Your task to perform on an android device: Search for sushi restaurants on Maps Image 0: 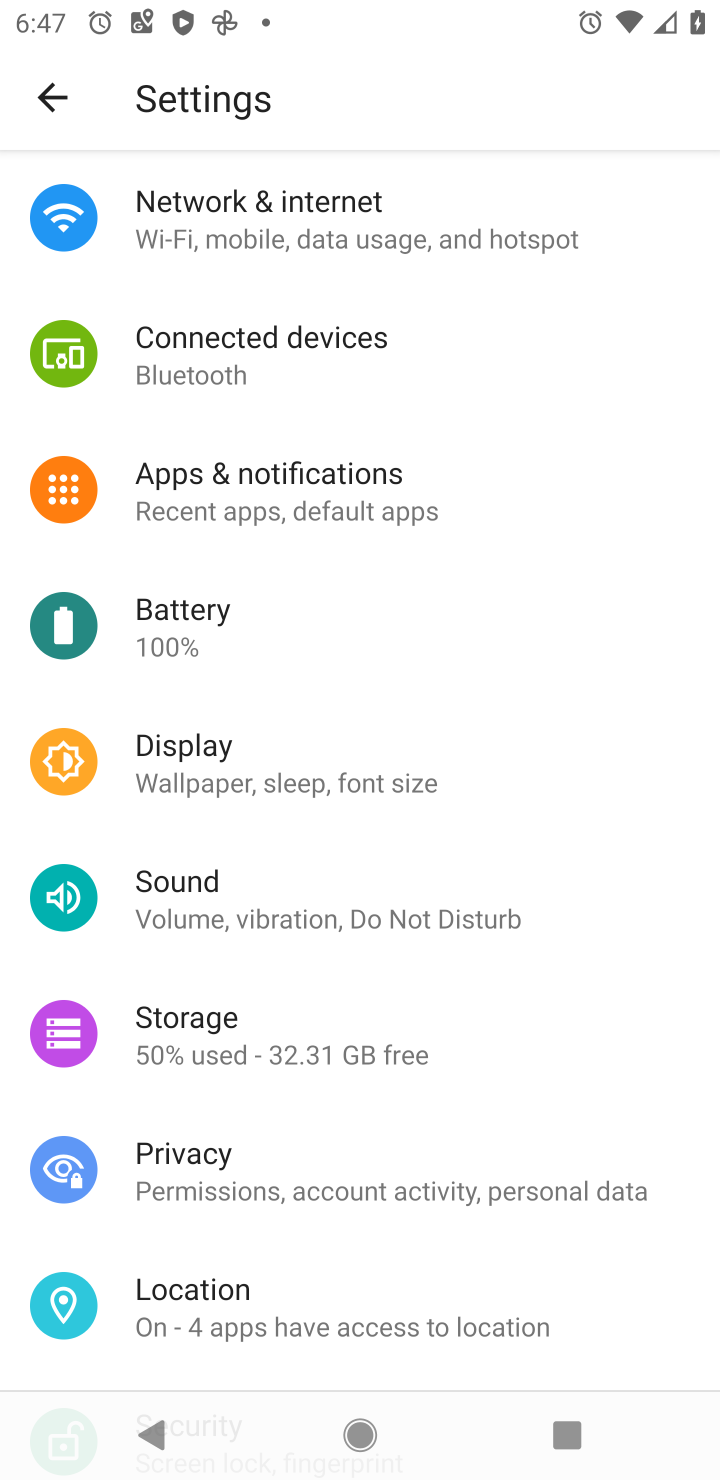
Step 0: press home button
Your task to perform on an android device: Search for sushi restaurants on Maps Image 1: 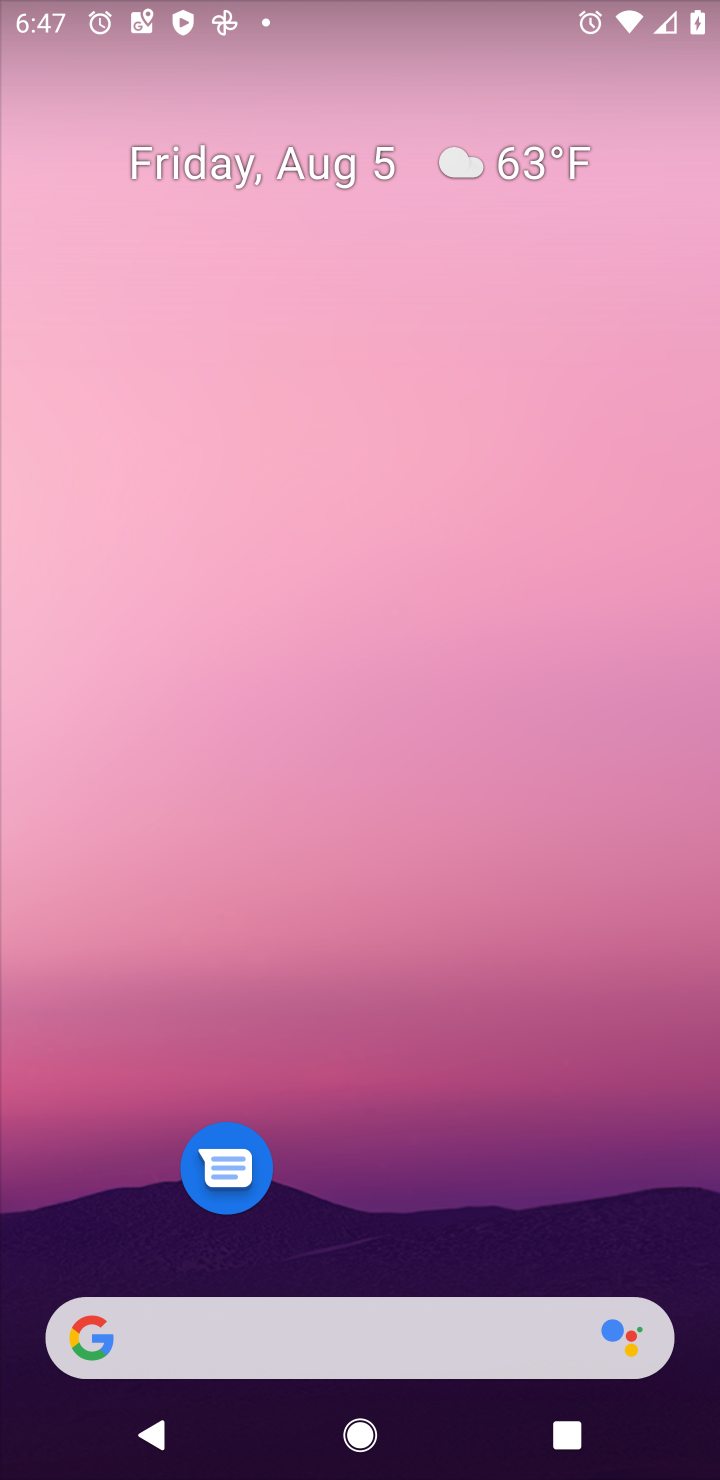
Step 1: drag from (373, 1216) to (481, 89)
Your task to perform on an android device: Search for sushi restaurants on Maps Image 2: 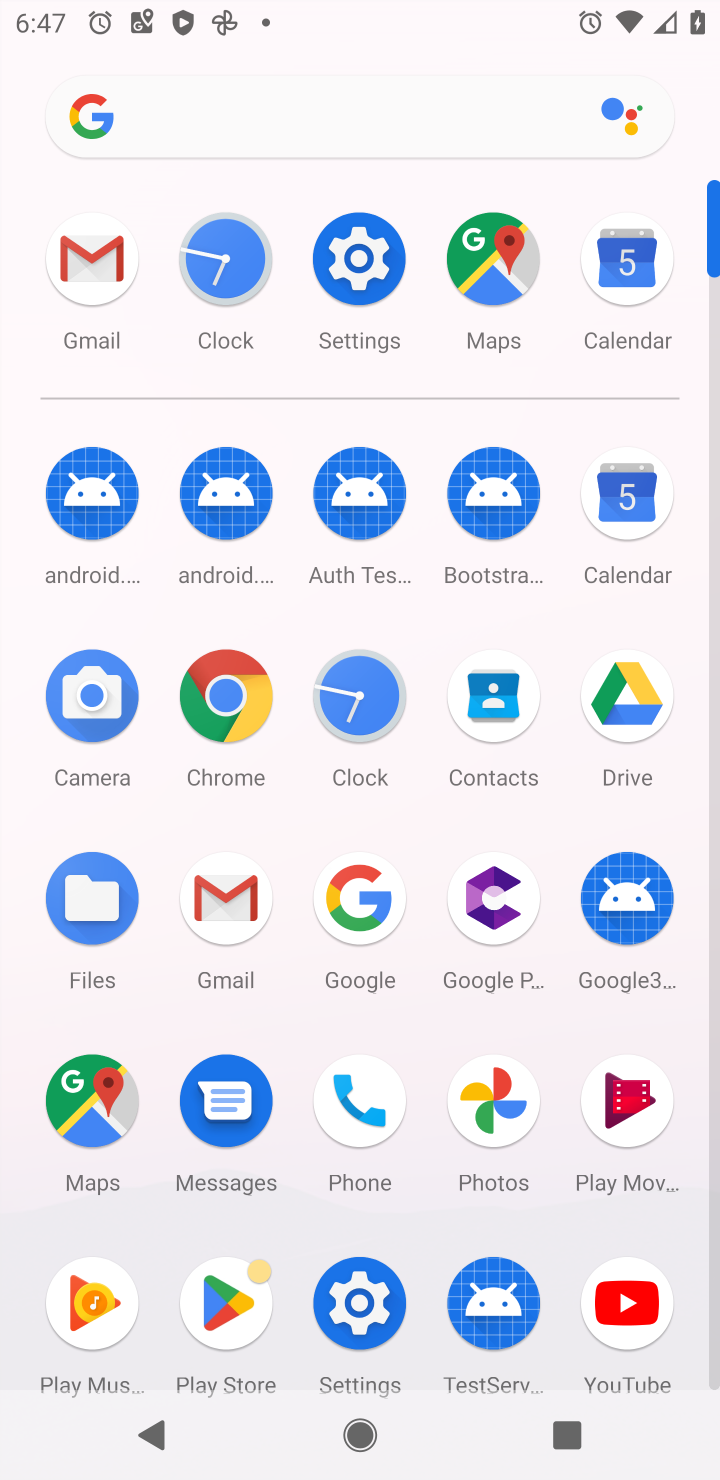
Step 2: click (493, 270)
Your task to perform on an android device: Search for sushi restaurants on Maps Image 3: 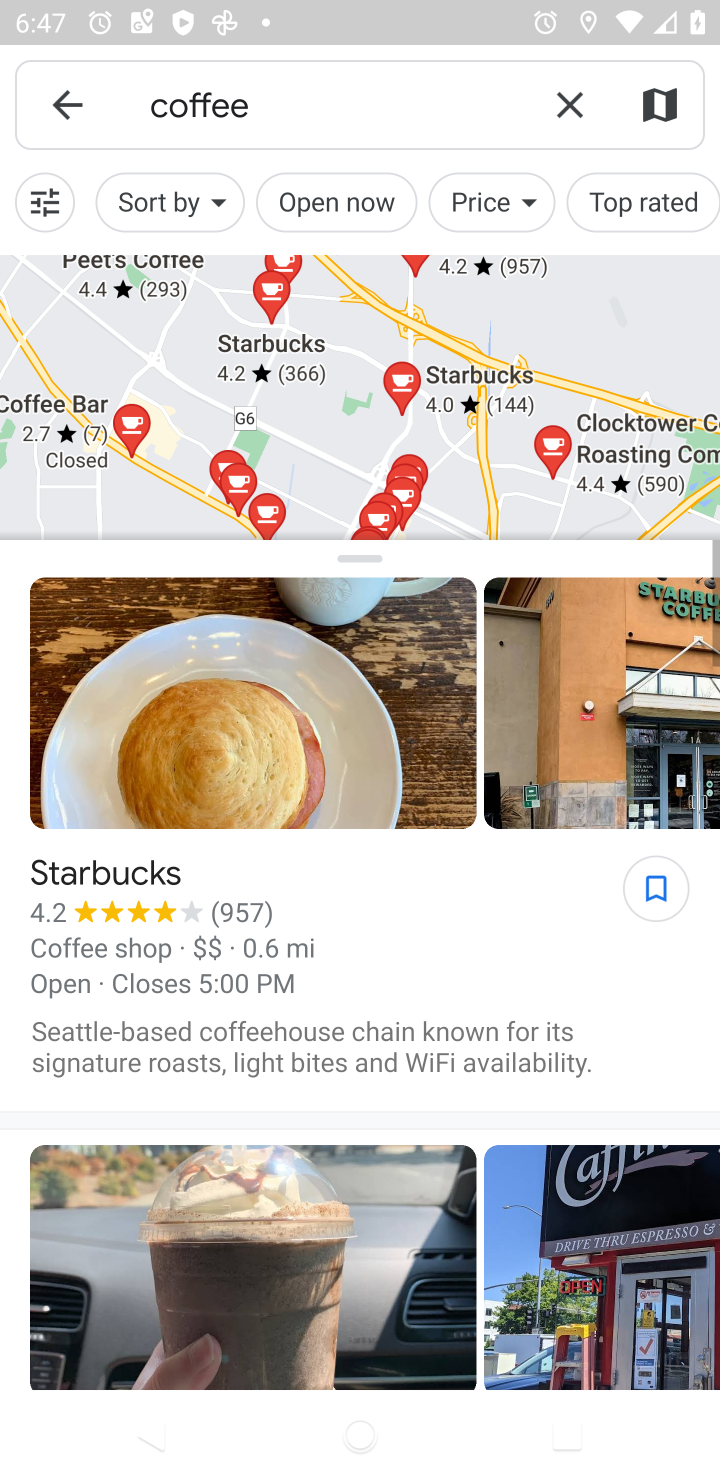
Step 3: click (57, 105)
Your task to perform on an android device: Search for sushi restaurants on Maps Image 4: 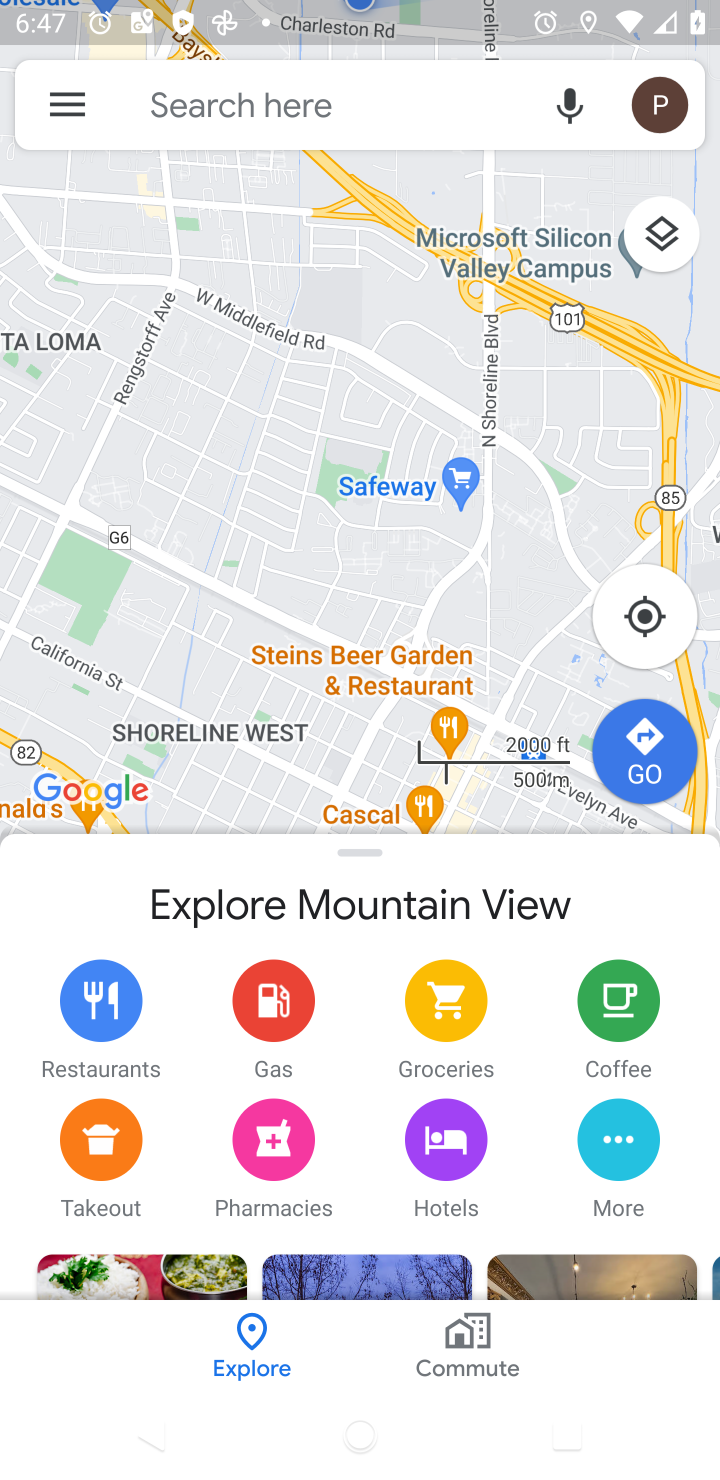
Step 4: click (239, 97)
Your task to perform on an android device: Search for sushi restaurants on Maps Image 5: 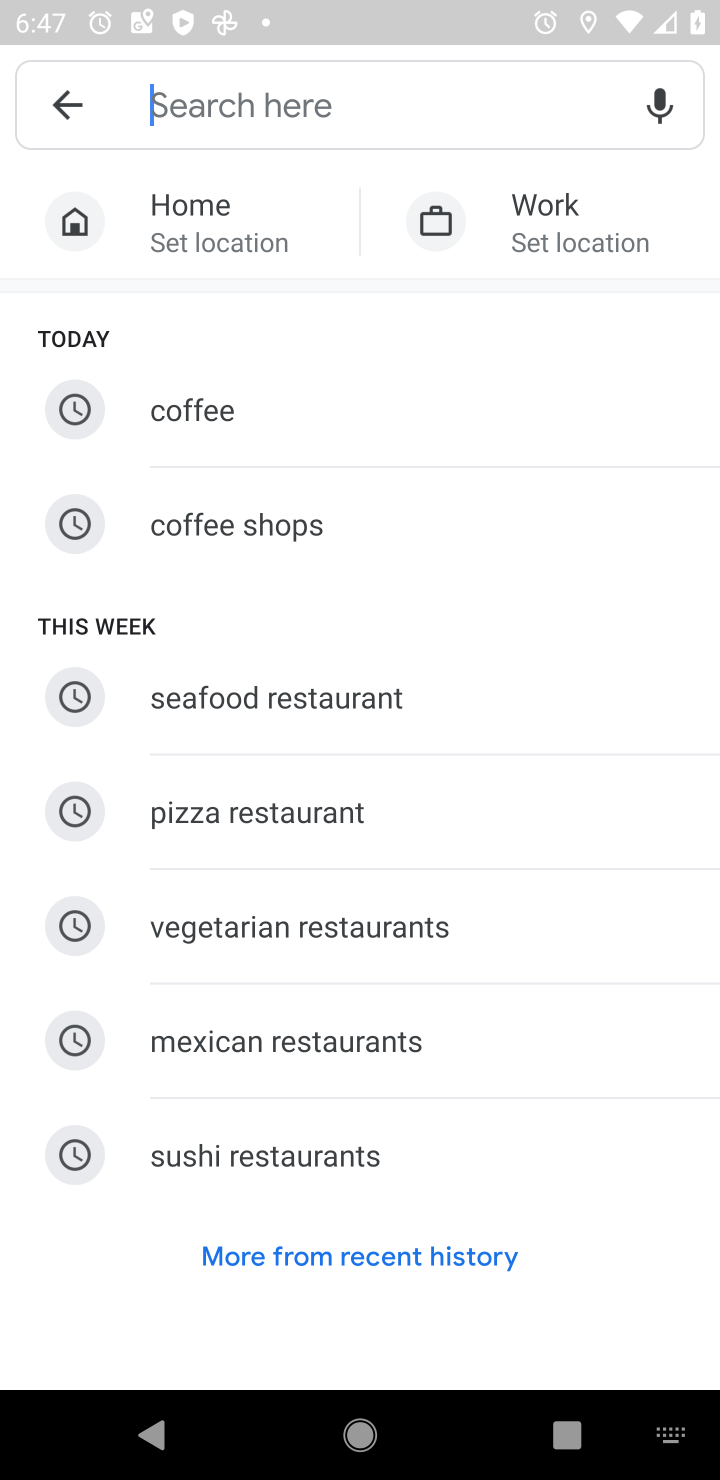
Step 5: click (303, 1158)
Your task to perform on an android device: Search for sushi restaurants on Maps Image 6: 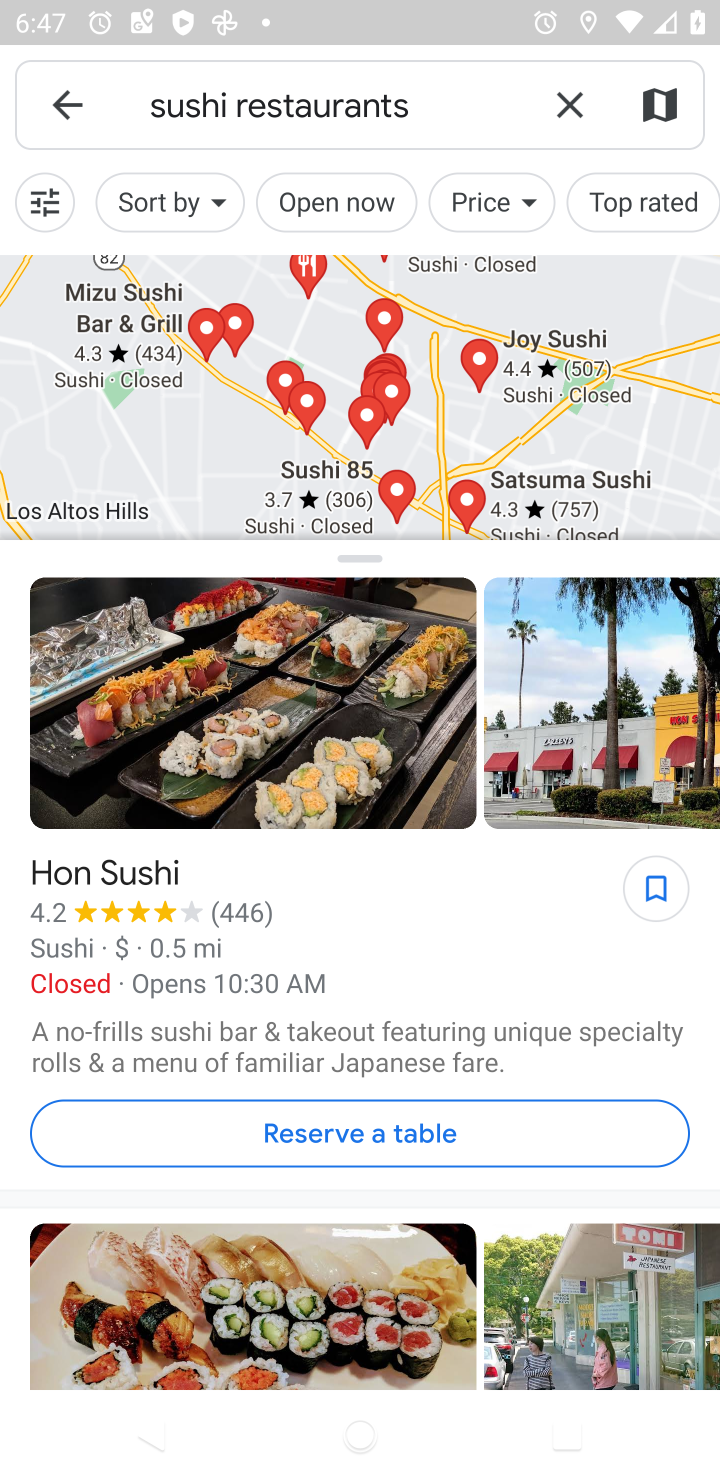
Step 6: task complete